Your task to perform on an android device: uninstall "ColorNote Notepad Notes" Image 0: 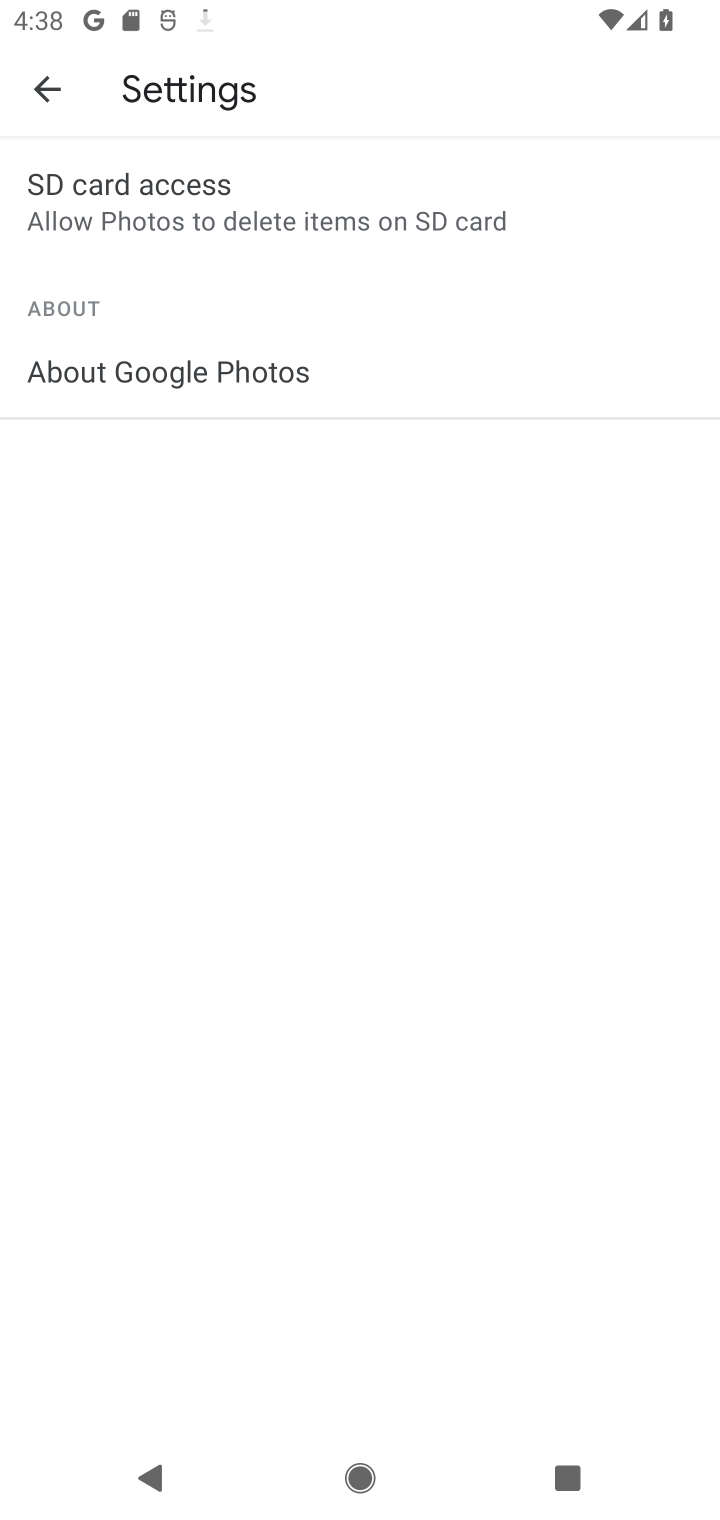
Step 0: press home button
Your task to perform on an android device: uninstall "ColorNote Notepad Notes" Image 1: 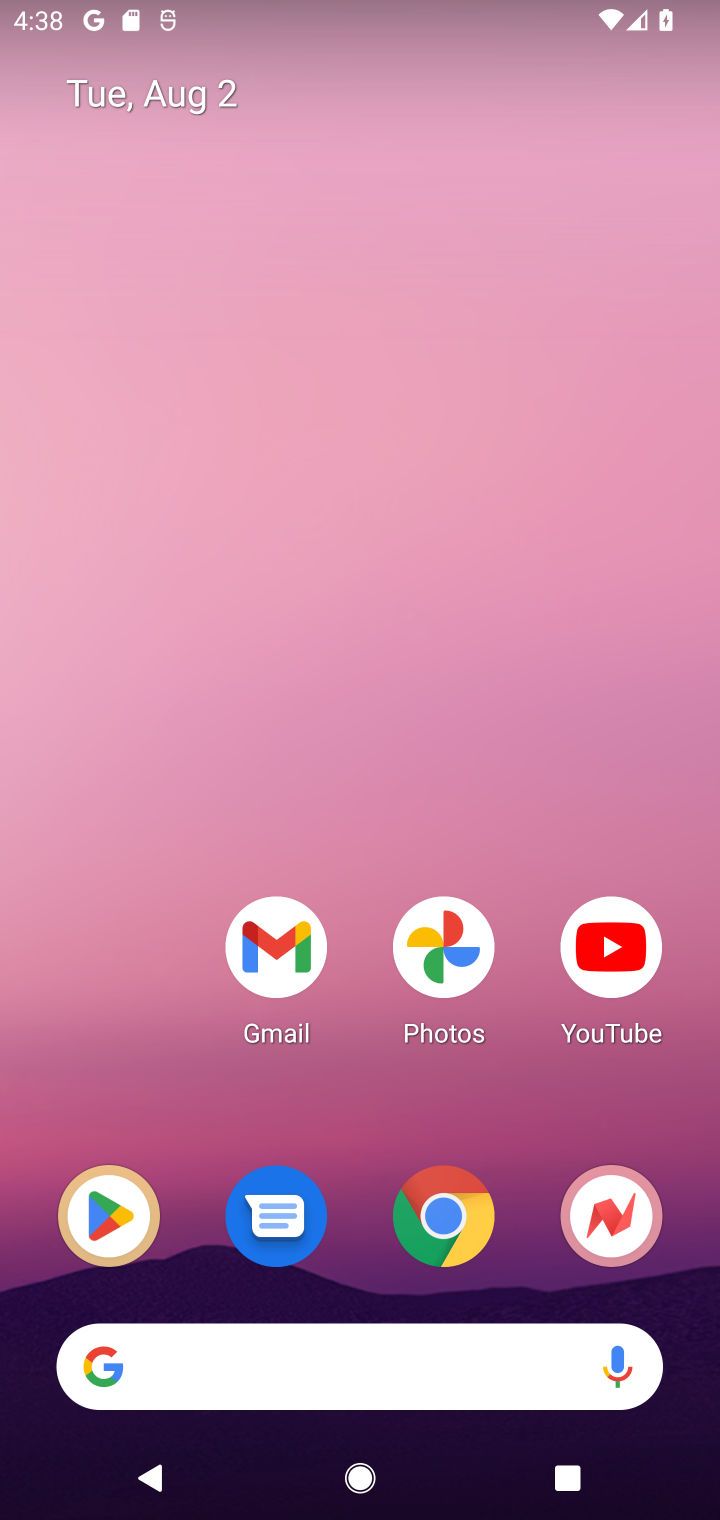
Step 1: drag from (157, 1309) to (317, 260)
Your task to perform on an android device: uninstall "ColorNote Notepad Notes" Image 2: 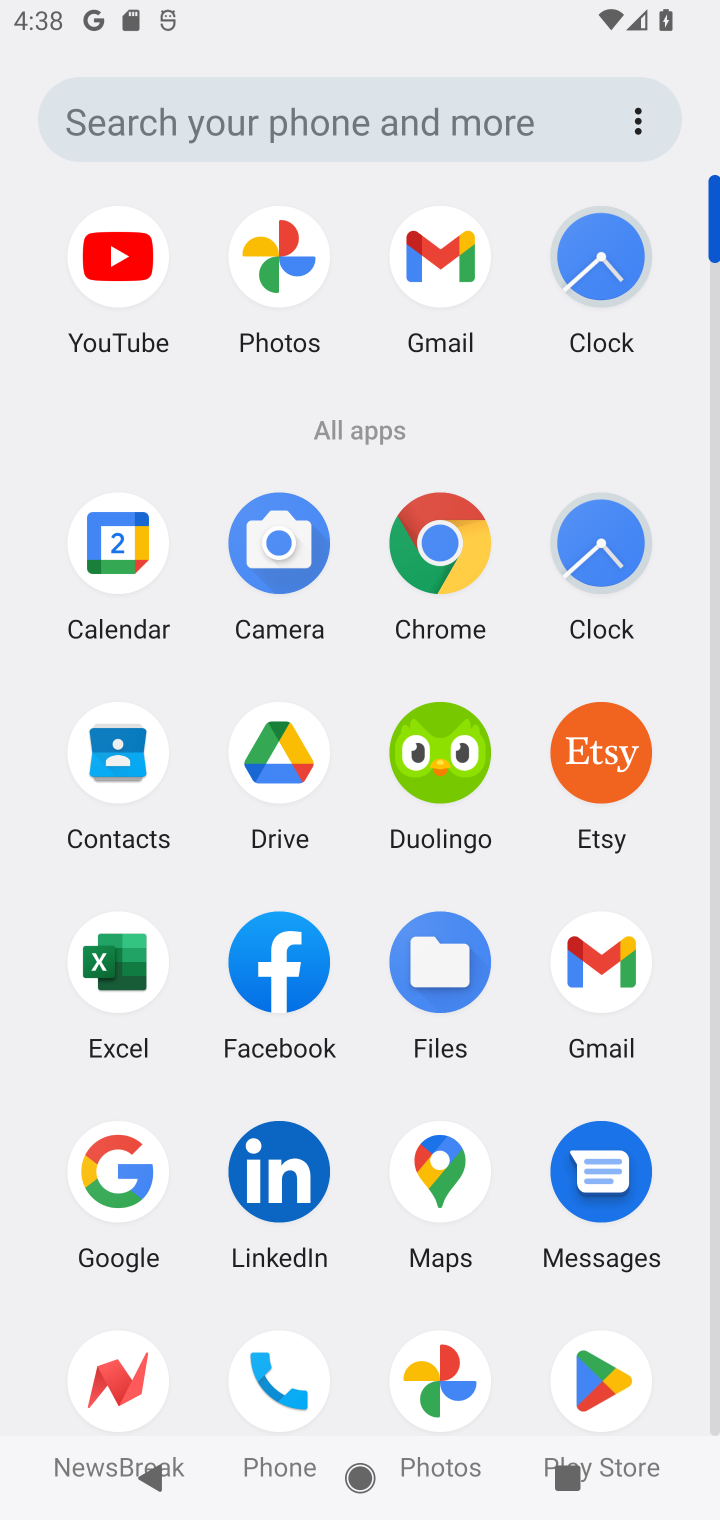
Step 2: click (591, 1414)
Your task to perform on an android device: uninstall "ColorNote Notepad Notes" Image 3: 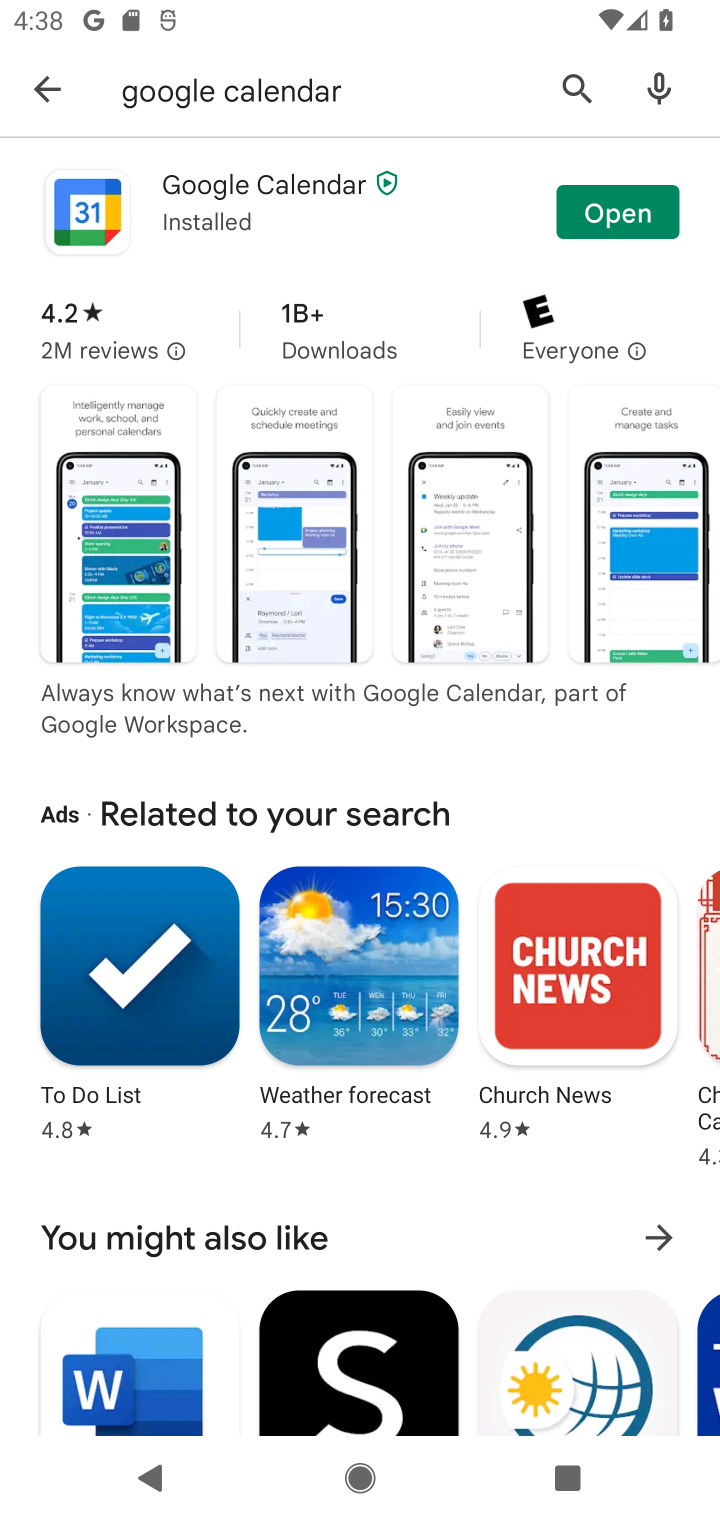
Step 3: click (561, 107)
Your task to perform on an android device: uninstall "ColorNote Notepad Notes" Image 4: 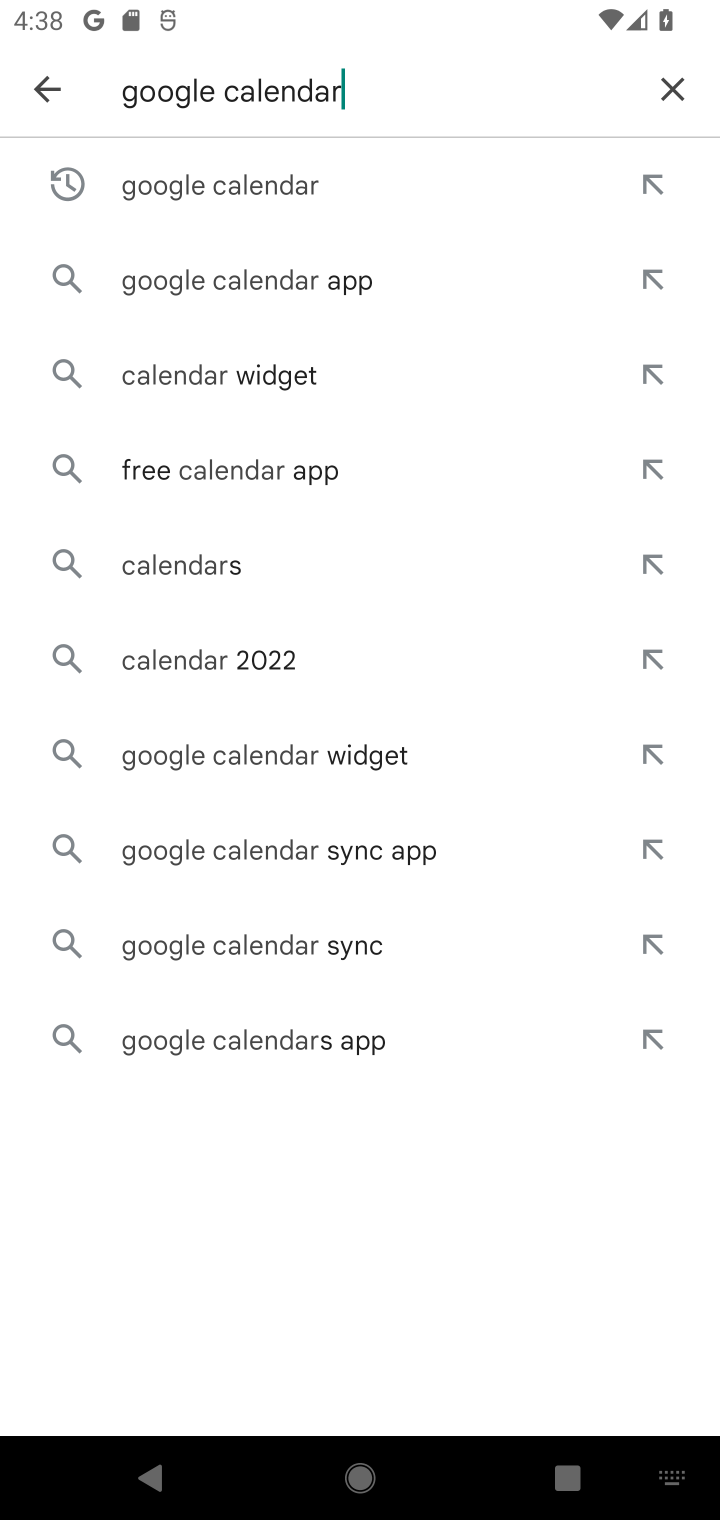
Step 4: click (650, 109)
Your task to perform on an android device: uninstall "ColorNote Notepad Notes" Image 5: 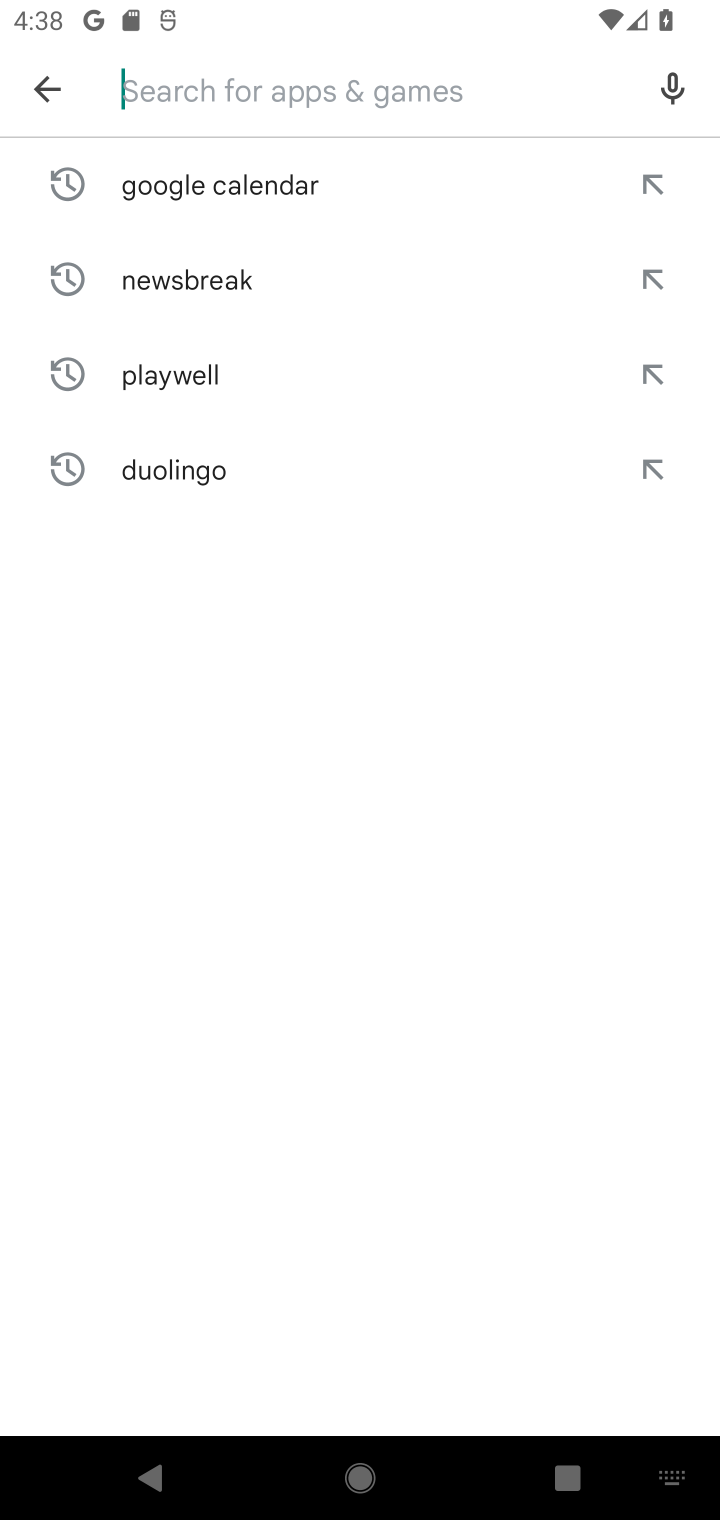
Step 5: type "colornote"
Your task to perform on an android device: uninstall "ColorNote Notepad Notes" Image 6: 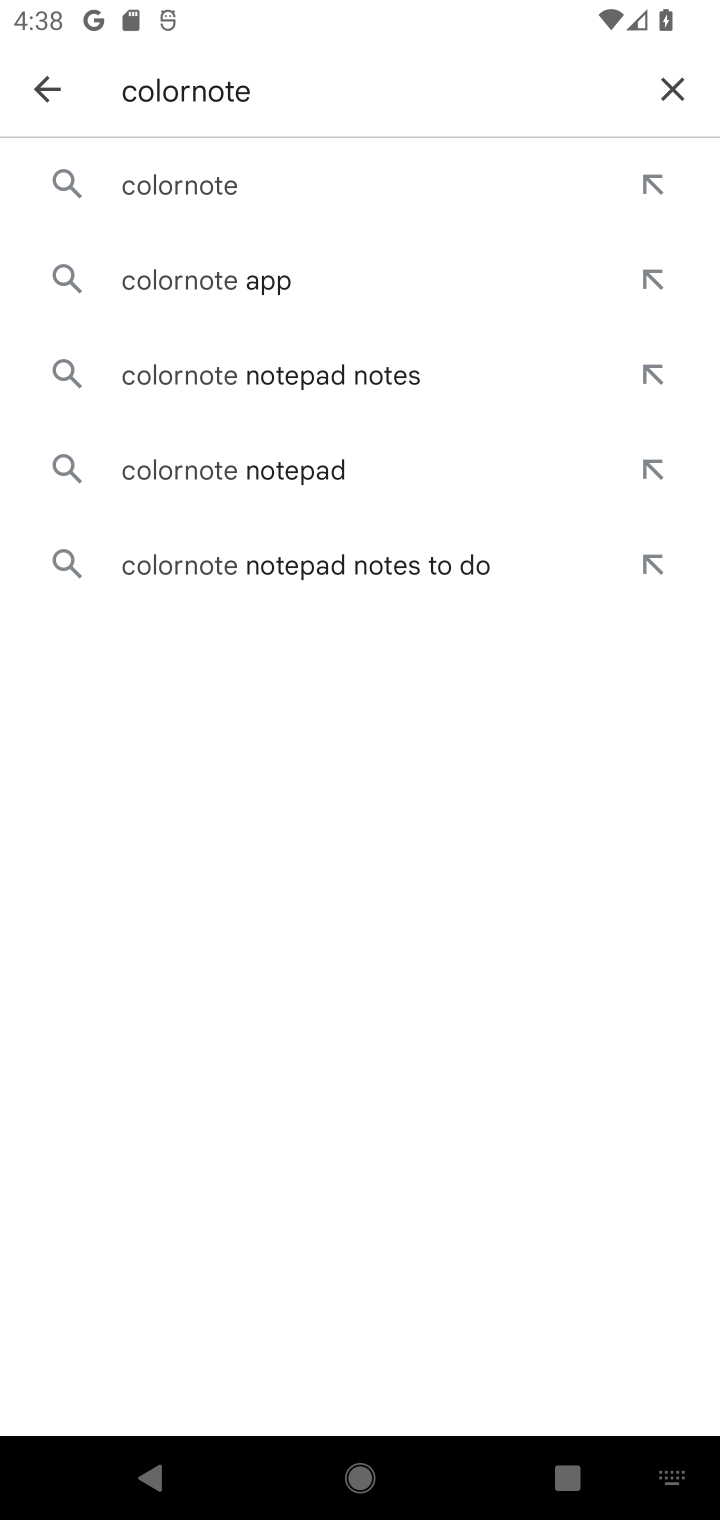
Step 6: click (395, 188)
Your task to perform on an android device: uninstall "ColorNote Notepad Notes" Image 7: 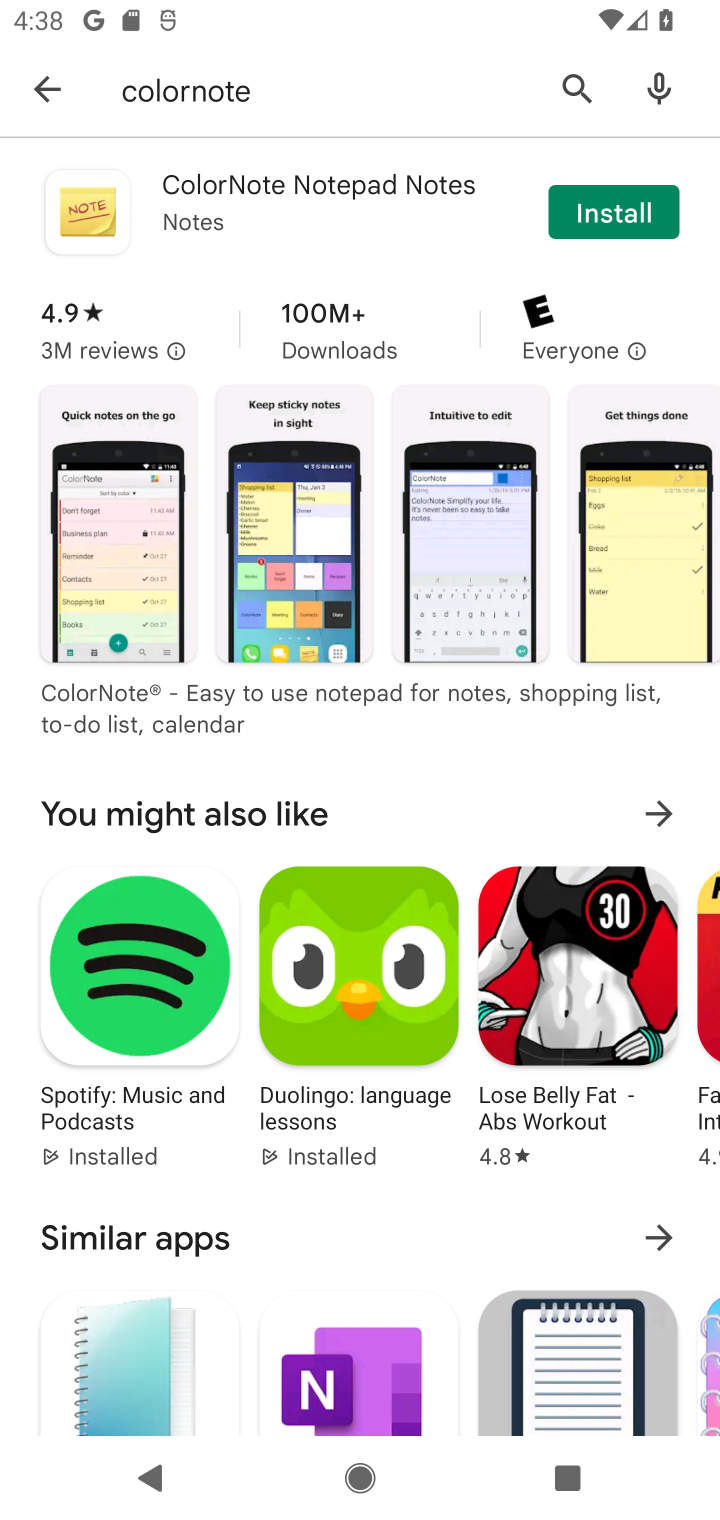
Step 7: click (603, 219)
Your task to perform on an android device: uninstall "ColorNote Notepad Notes" Image 8: 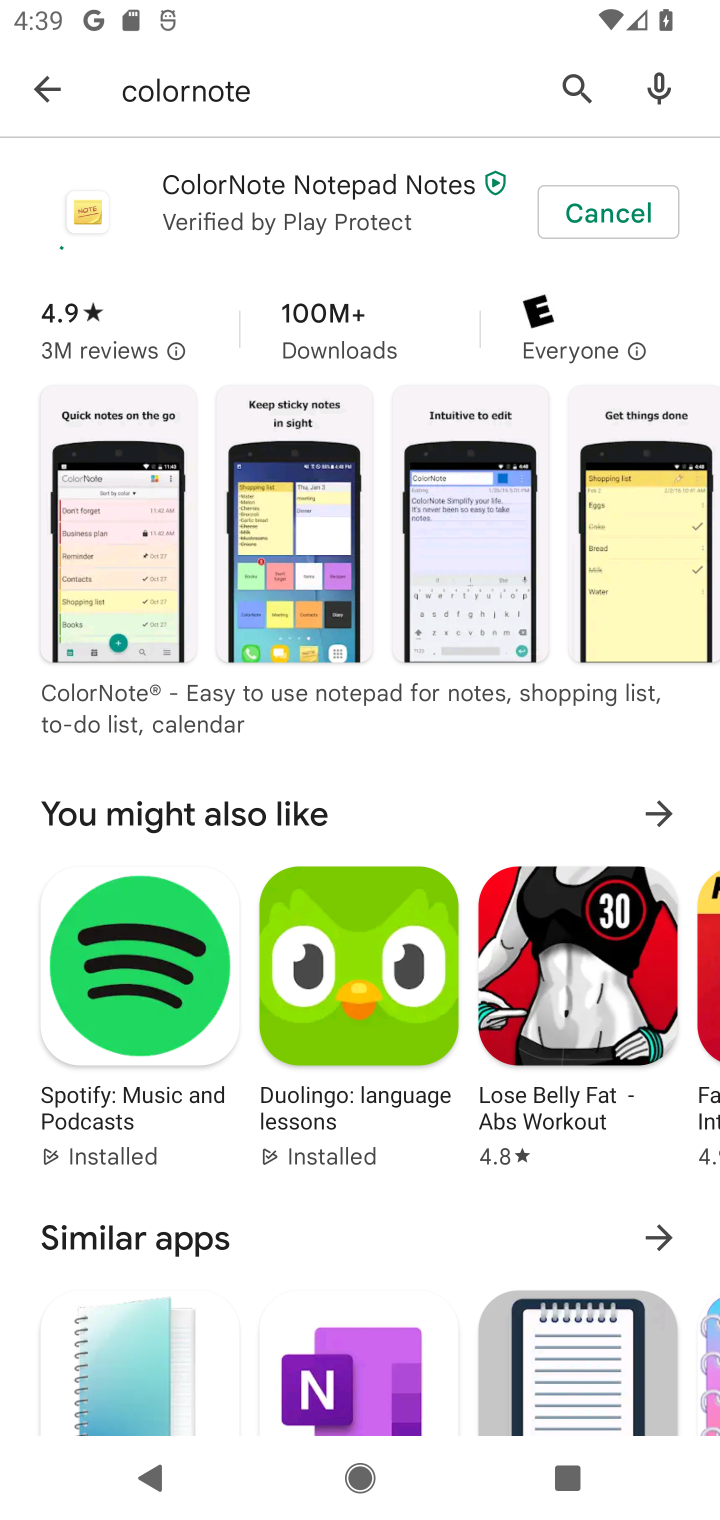
Step 8: task complete